Your task to perform on an android device: Search for Mexican restaurants on Maps Image 0: 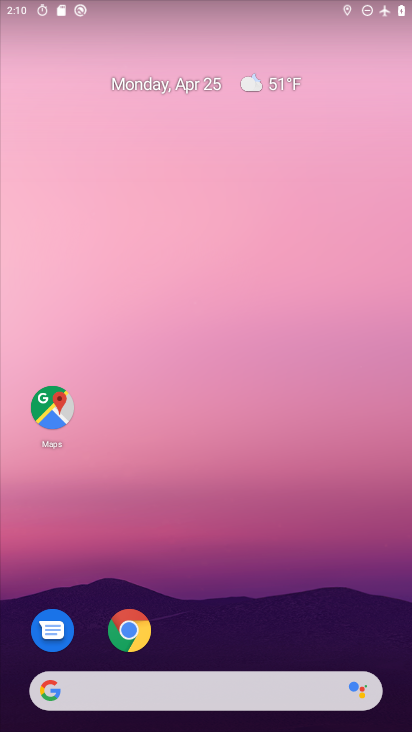
Step 0: drag from (319, 588) to (346, 0)
Your task to perform on an android device: Search for Mexican restaurants on Maps Image 1: 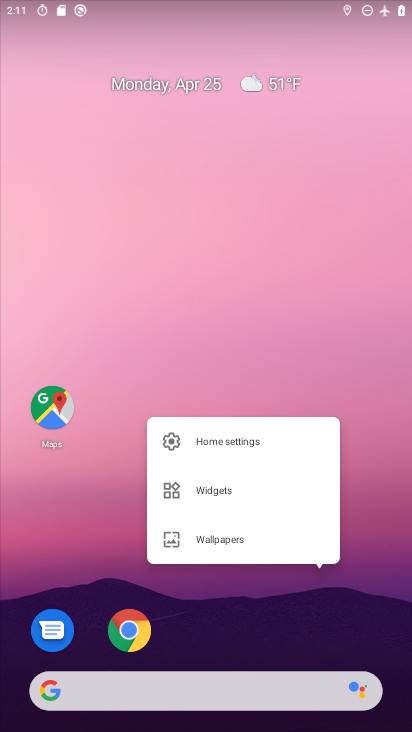
Step 1: click (362, 419)
Your task to perform on an android device: Search for Mexican restaurants on Maps Image 2: 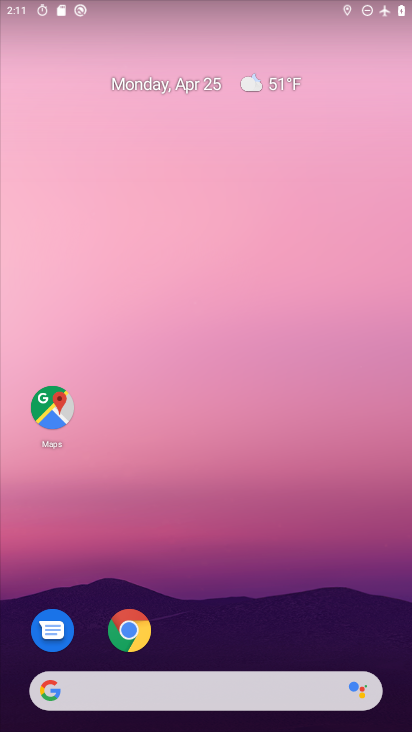
Step 2: drag from (325, 541) to (361, 108)
Your task to perform on an android device: Search for Mexican restaurants on Maps Image 3: 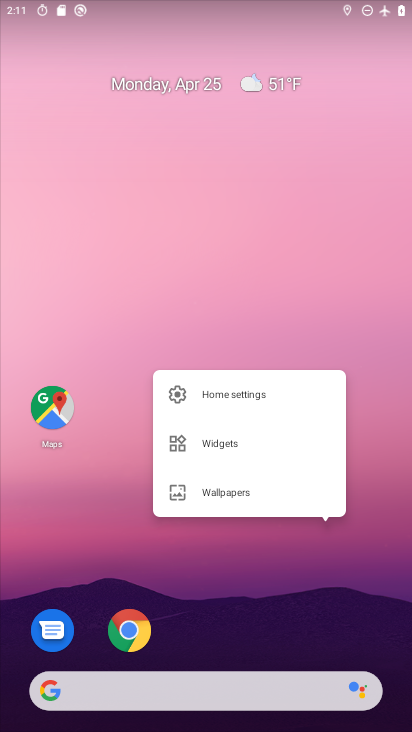
Step 3: click (369, 358)
Your task to perform on an android device: Search for Mexican restaurants on Maps Image 4: 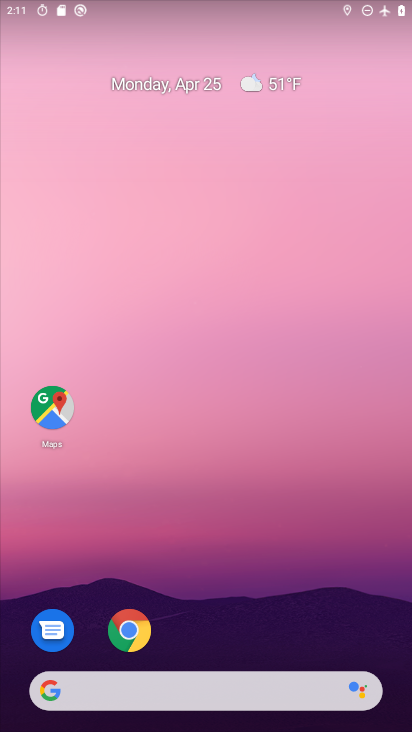
Step 4: click (50, 405)
Your task to perform on an android device: Search for Mexican restaurants on Maps Image 5: 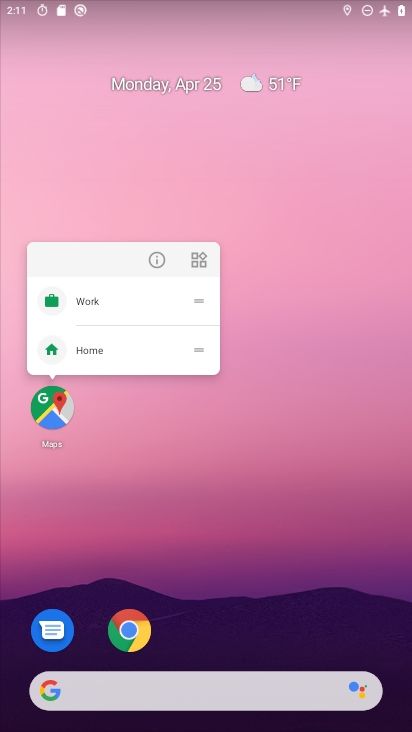
Step 5: click (57, 398)
Your task to perform on an android device: Search for Mexican restaurants on Maps Image 6: 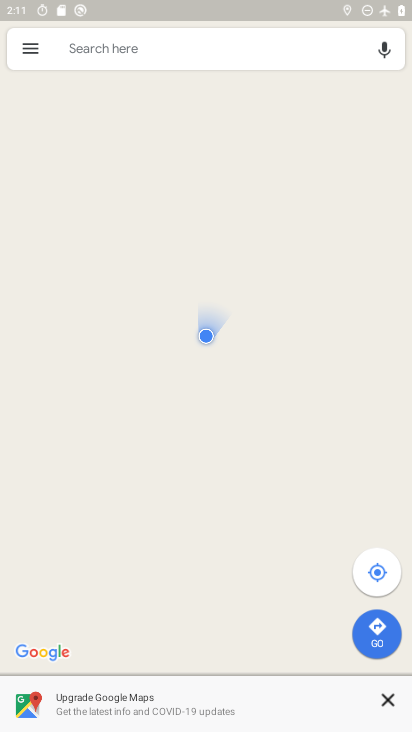
Step 6: click (175, 48)
Your task to perform on an android device: Search for Mexican restaurants on Maps Image 7: 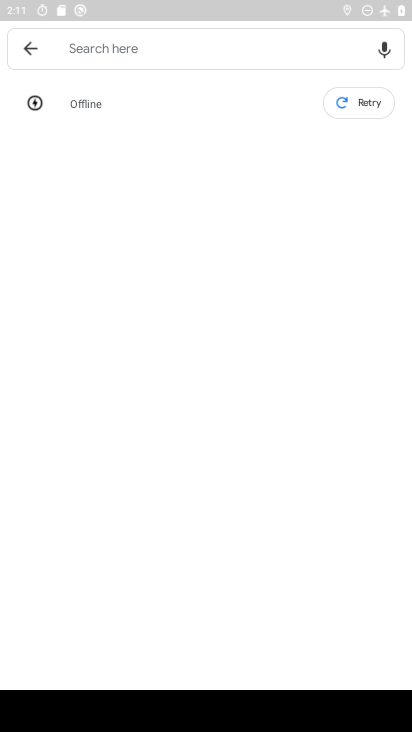
Step 7: type "mexican resturents"
Your task to perform on an android device: Search for Mexican restaurants on Maps Image 8: 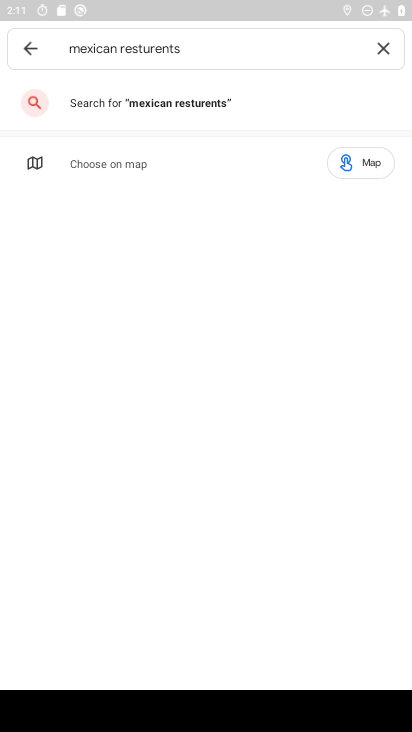
Step 8: click (186, 100)
Your task to perform on an android device: Search for Mexican restaurants on Maps Image 9: 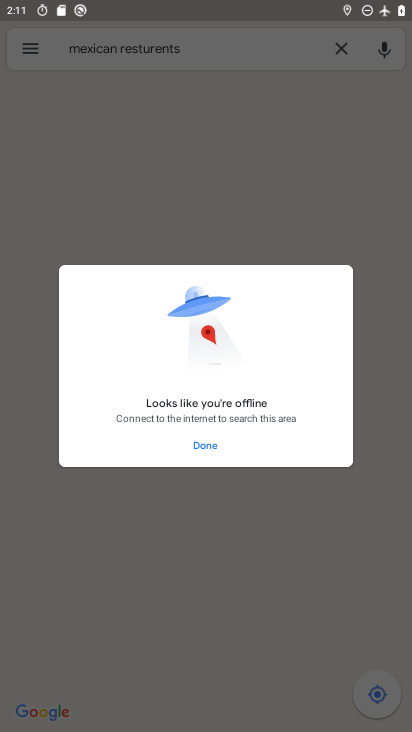
Step 9: task complete